Your task to perform on an android device: find which apps use the phone's location Image 0: 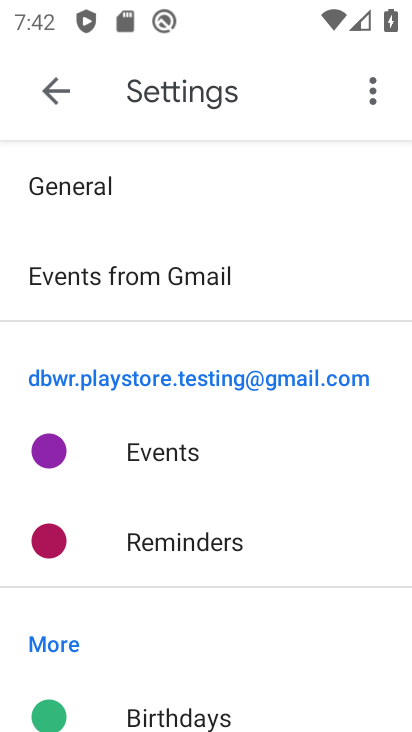
Step 0: press home button
Your task to perform on an android device: find which apps use the phone's location Image 1: 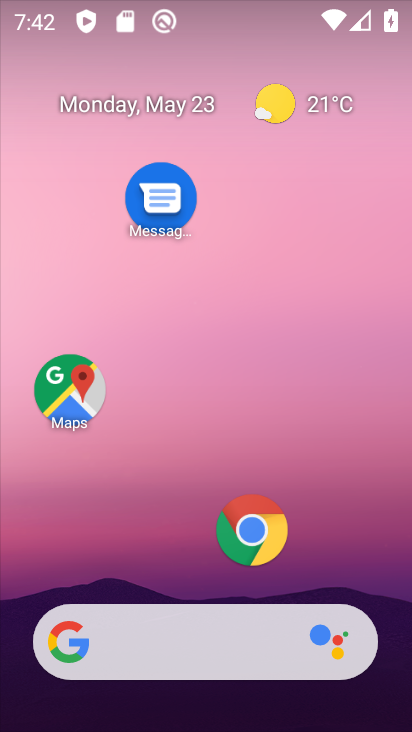
Step 1: drag from (167, 577) to (219, 162)
Your task to perform on an android device: find which apps use the phone's location Image 2: 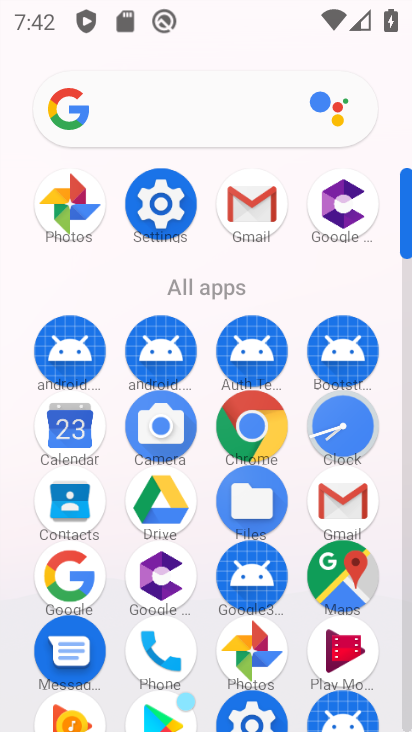
Step 2: click (160, 203)
Your task to perform on an android device: find which apps use the phone's location Image 3: 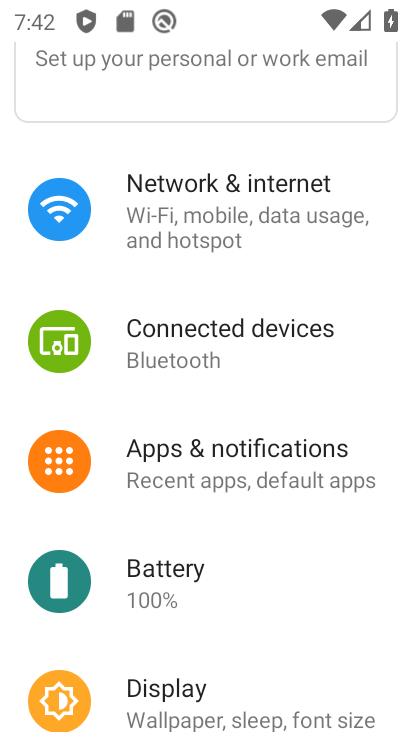
Step 3: drag from (196, 630) to (203, 146)
Your task to perform on an android device: find which apps use the phone's location Image 4: 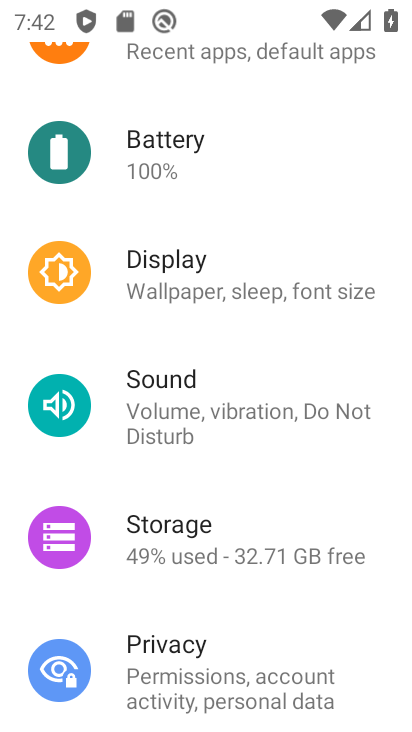
Step 4: drag from (185, 600) to (235, 145)
Your task to perform on an android device: find which apps use the phone's location Image 5: 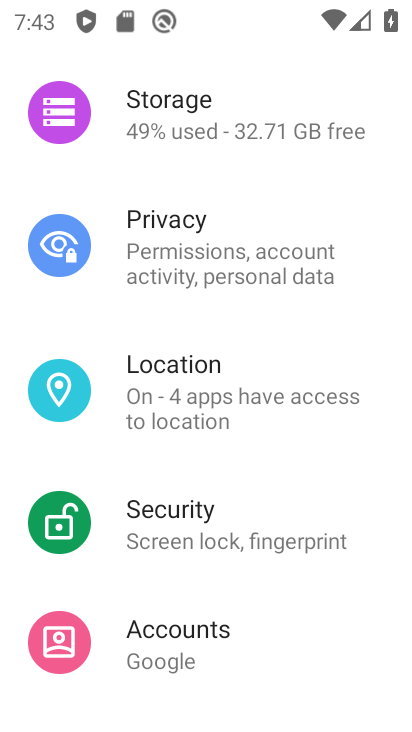
Step 5: click (142, 412)
Your task to perform on an android device: find which apps use the phone's location Image 6: 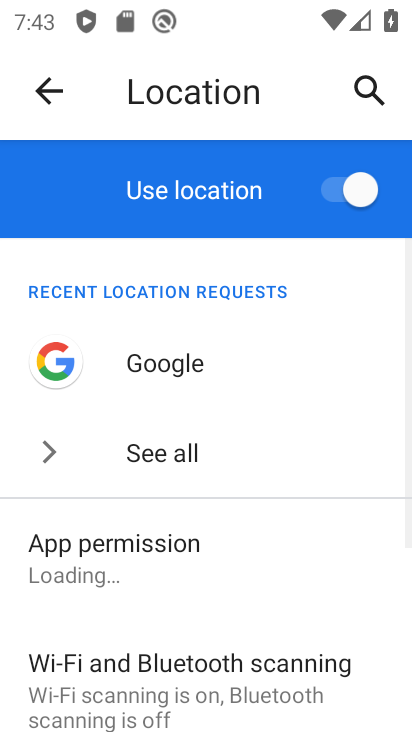
Step 6: click (170, 456)
Your task to perform on an android device: find which apps use the phone's location Image 7: 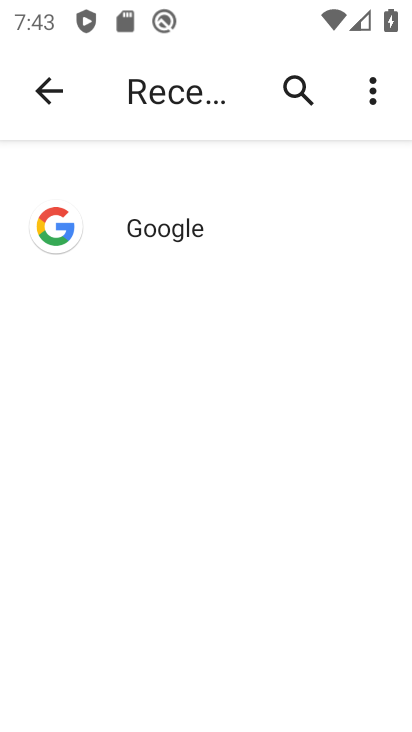
Step 7: task complete